Your task to perform on an android device: clear history in the chrome app Image 0: 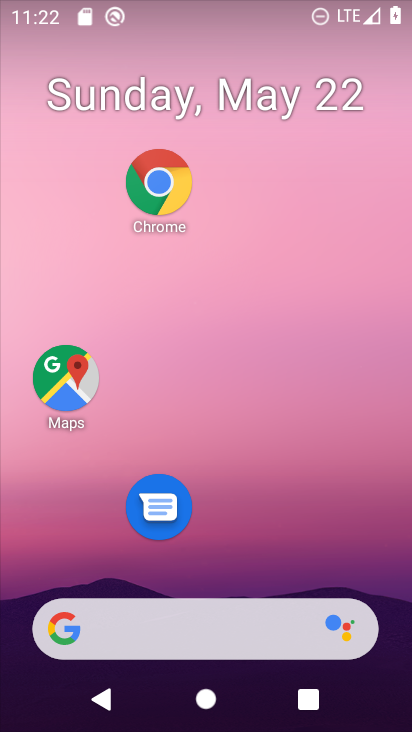
Step 0: click (168, 197)
Your task to perform on an android device: clear history in the chrome app Image 1: 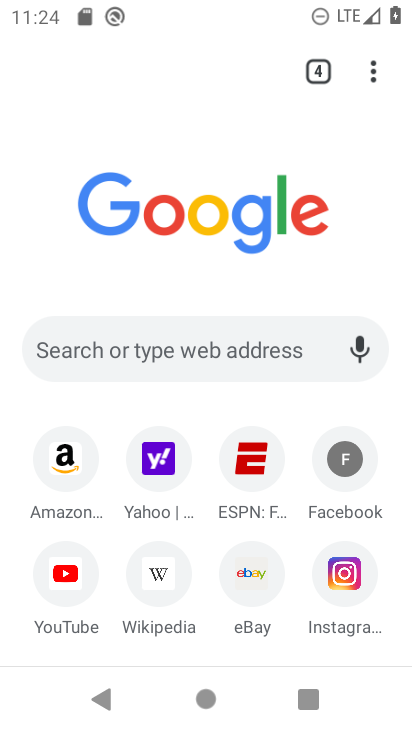
Step 1: click (377, 71)
Your task to perform on an android device: clear history in the chrome app Image 2: 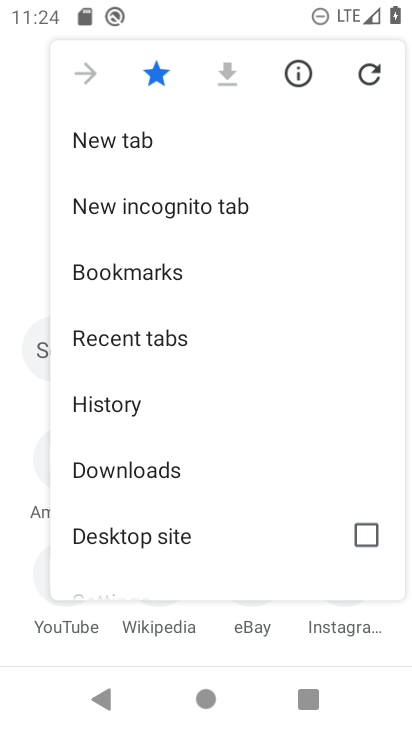
Step 2: click (153, 396)
Your task to perform on an android device: clear history in the chrome app Image 3: 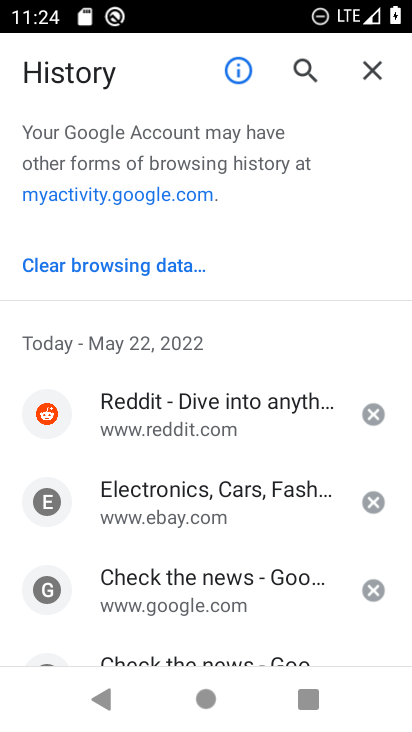
Step 3: click (151, 268)
Your task to perform on an android device: clear history in the chrome app Image 4: 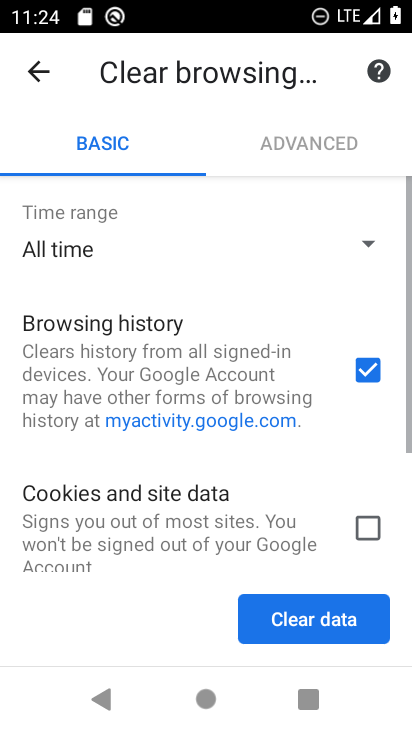
Step 4: click (334, 616)
Your task to perform on an android device: clear history in the chrome app Image 5: 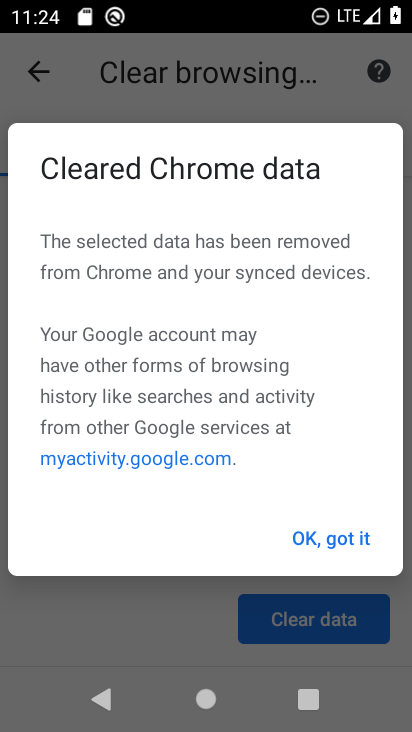
Step 5: click (360, 544)
Your task to perform on an android device: clear history in the chrome app Image 6: 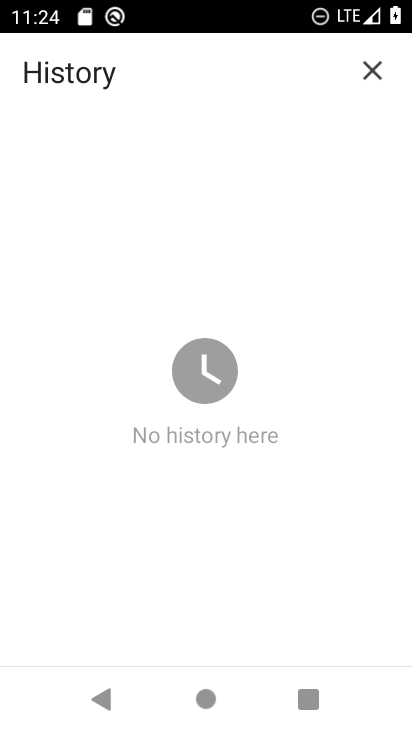
Step 6: task complete